Your task to perform on an android device: turn off notifications settings in the gmail app Image 0: 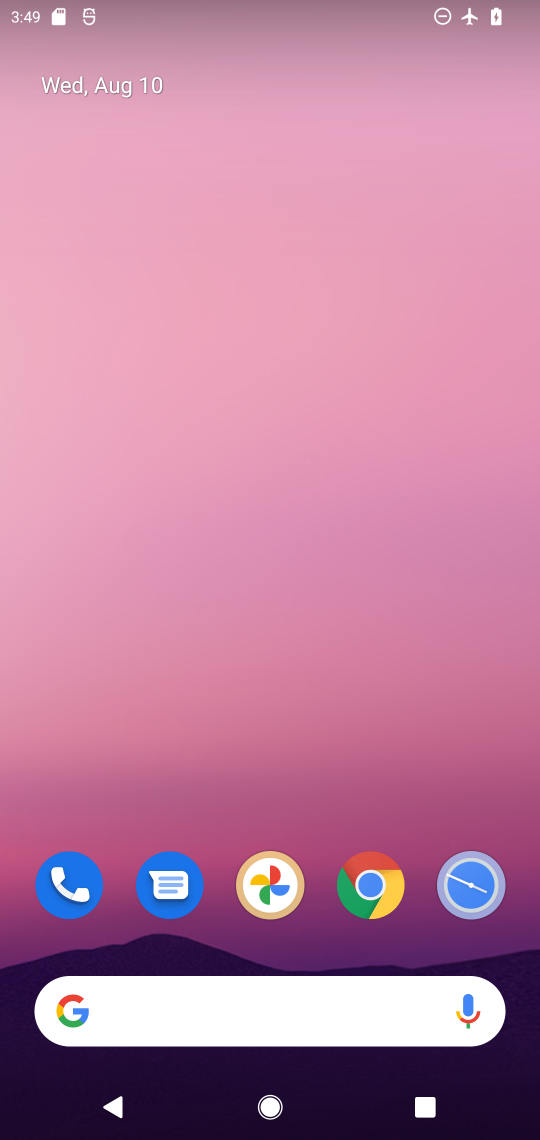
Step 0: drag from (310, 943) to (194, 102)
Your task to perform on an android device: turn off notifications settings in the gmail app Image 1: 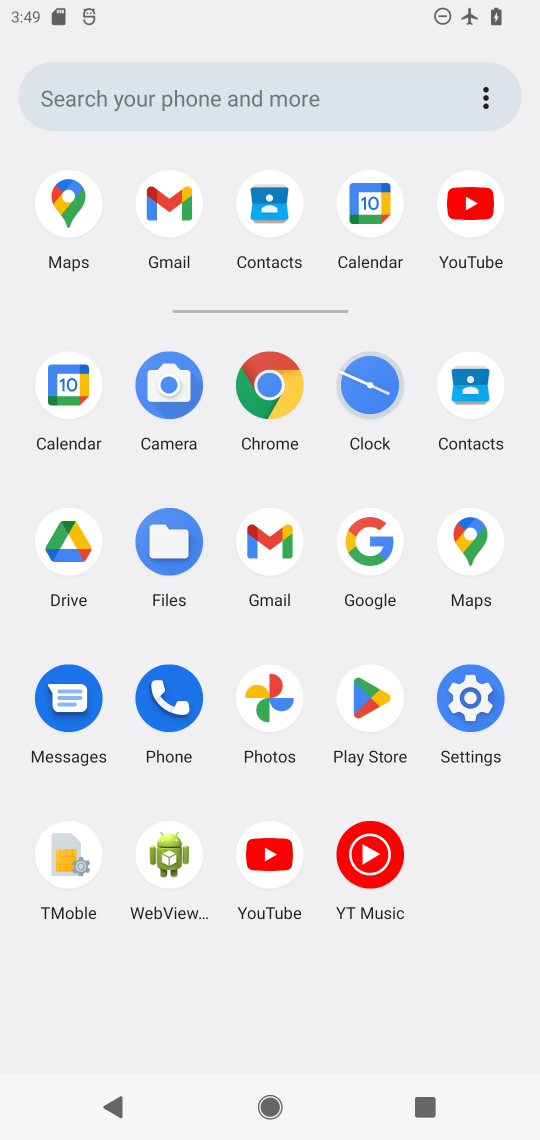
Step 1: click (162, 206)
Your task to perform on an android device: turn off notifications settings in the gmail app Image 2: 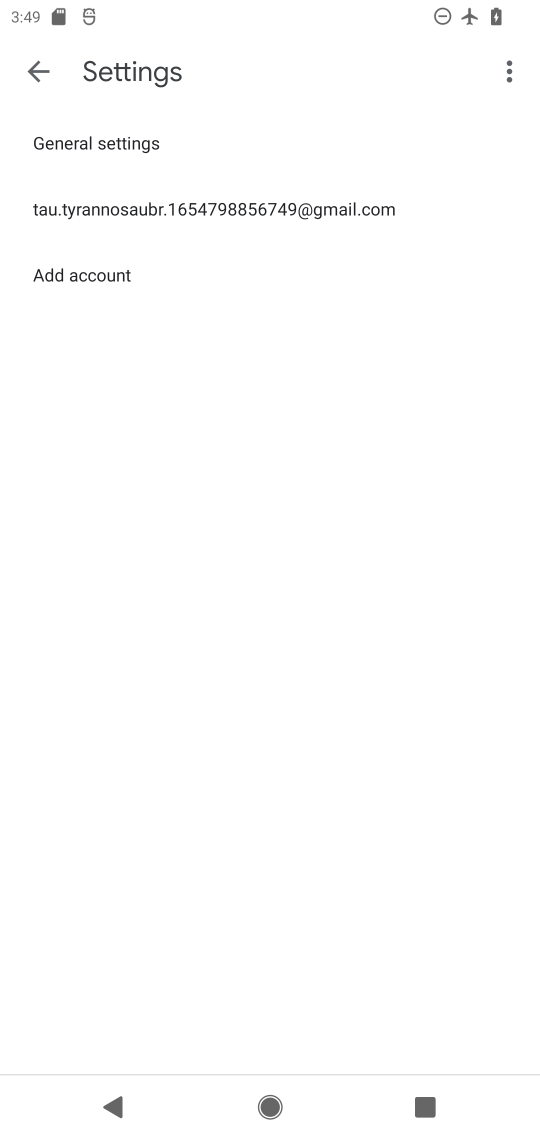
Step 2: click (86, 146)
Your task to perform on an android device: turn off notifications settings in the gmail app Image 3: 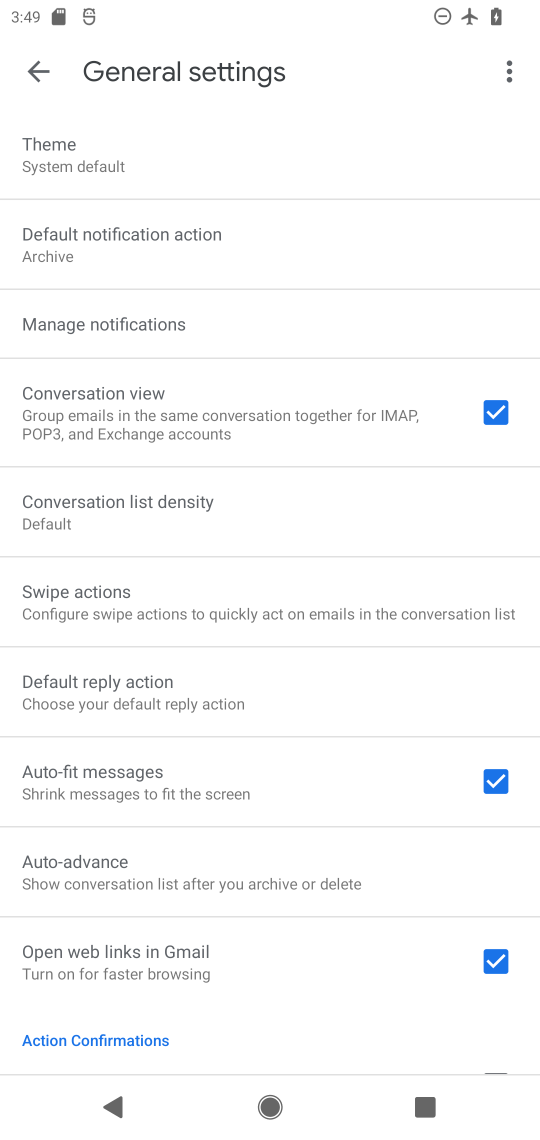
Step 3: click (94, 313)
Your task to perform on an android device: turn off notifications settings in the gmail app Image 4: 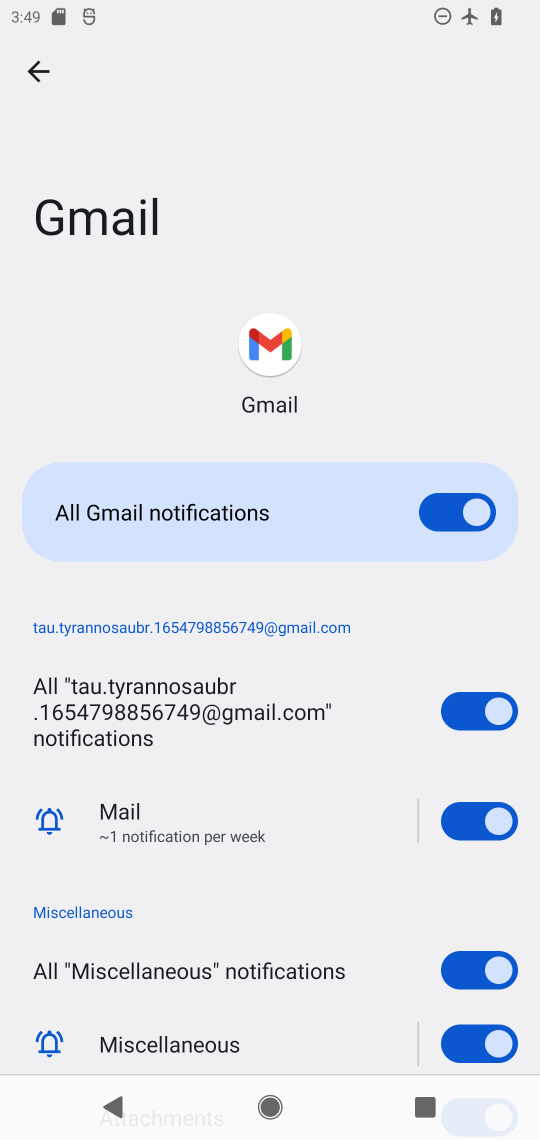
Step 4: click (451, 518)
Your task to perform on an android device: turn off notifications settings in the gmail app Image 5: 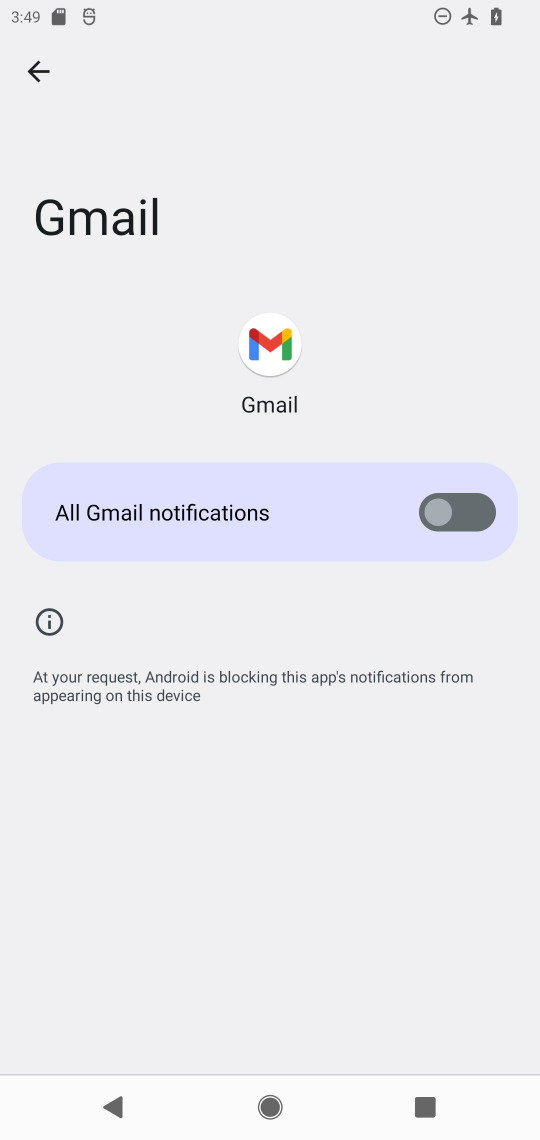
Step 5: task complete